Your task to perform on an android device: Toggle the flashlight Image 0: 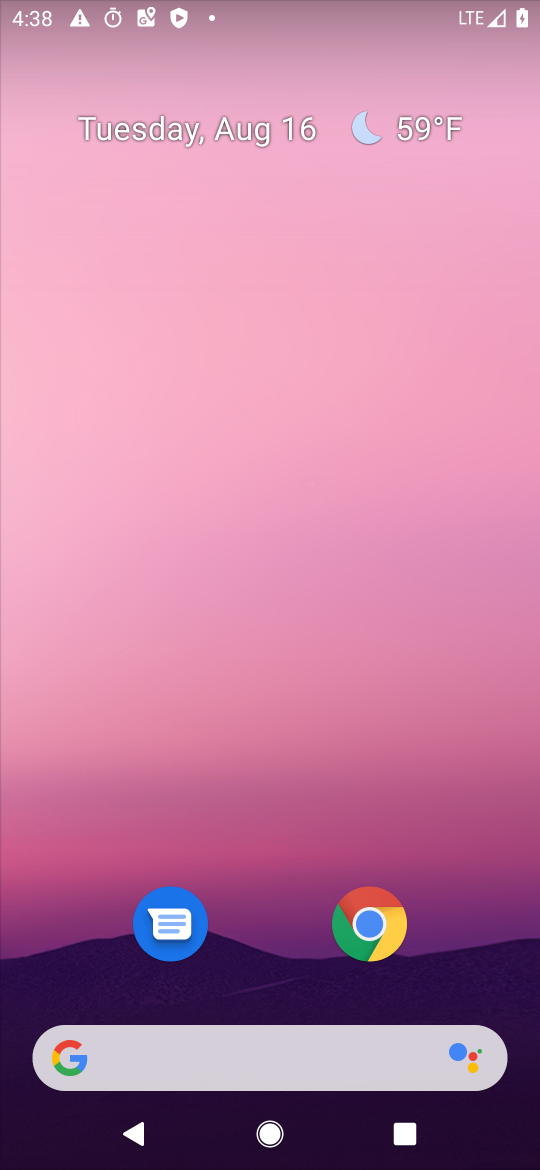
Step 0: drag from (254, 962) to (538, 15)
Your task to perform on an android device: Toggle the flashlight Image 1: 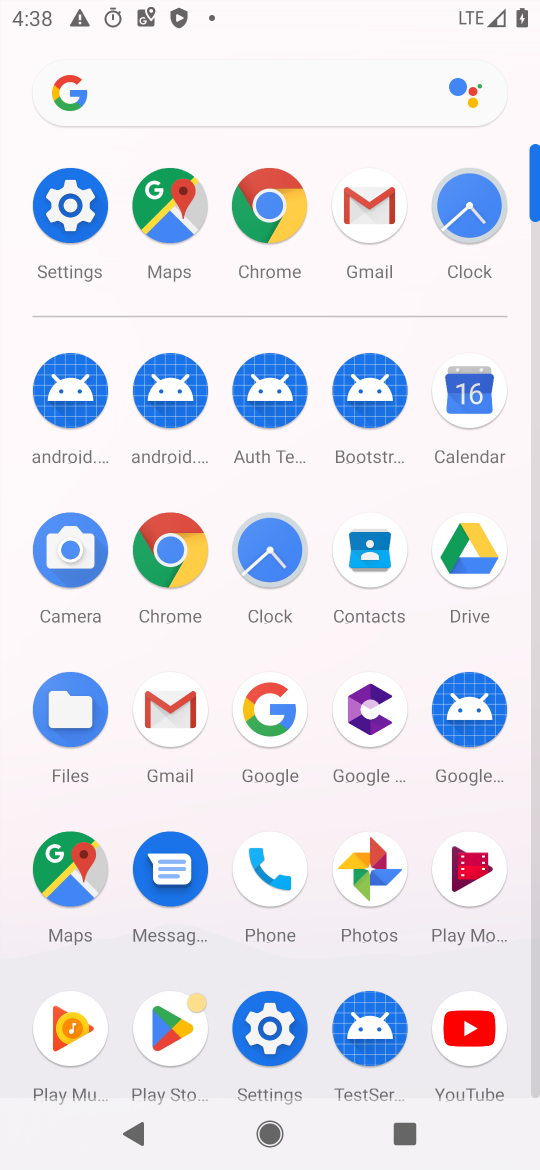
Step 1: click (99, 257)
Your task to perform on an android device: Toggle the flashlight Image 2: 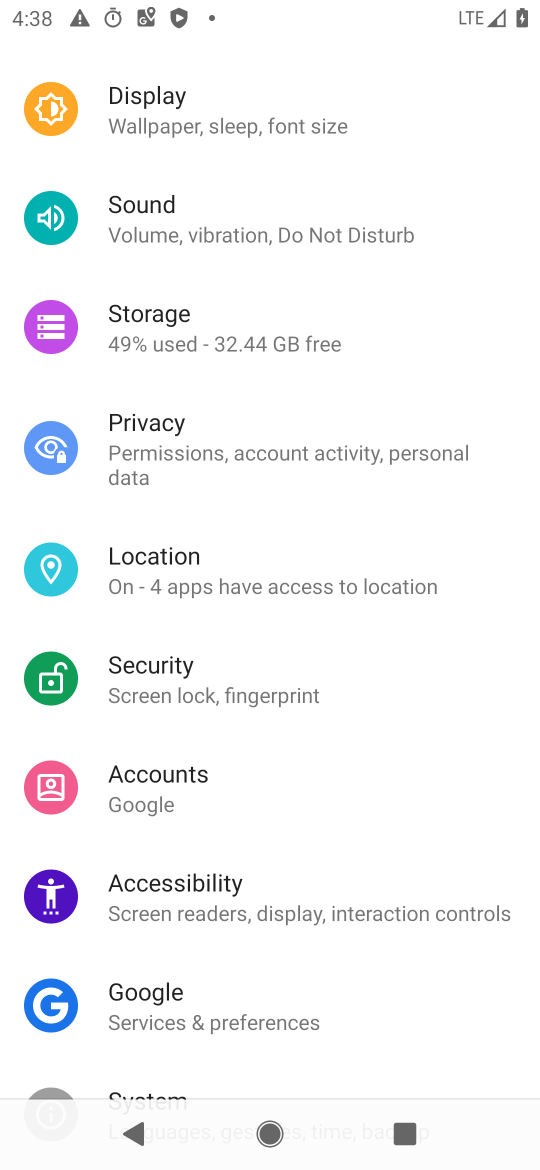
Step 2: task complete